Your task to perform on an android device: Open the map Image 0: 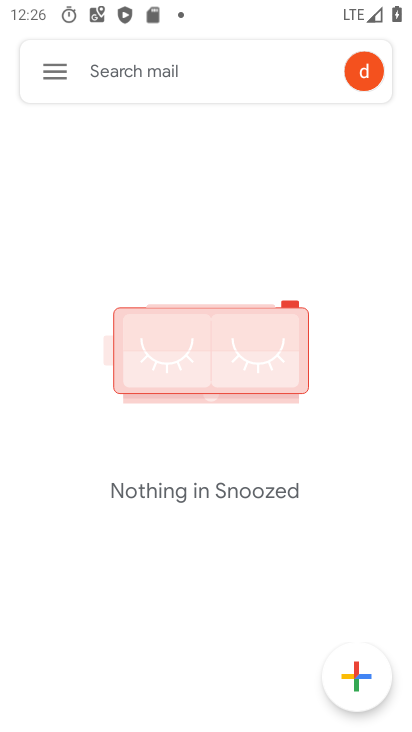
Step 0: press home button
Your task to perform on an android device: Open the map Image 1: 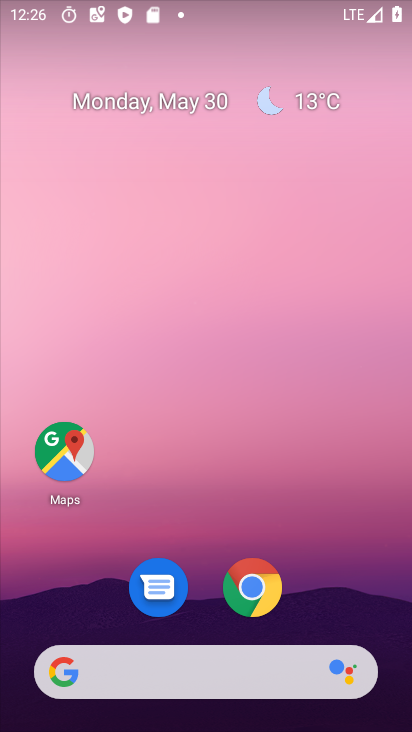
Step 1: click (62, 463)
Your task to perform on an android device: Open the map Image 2: 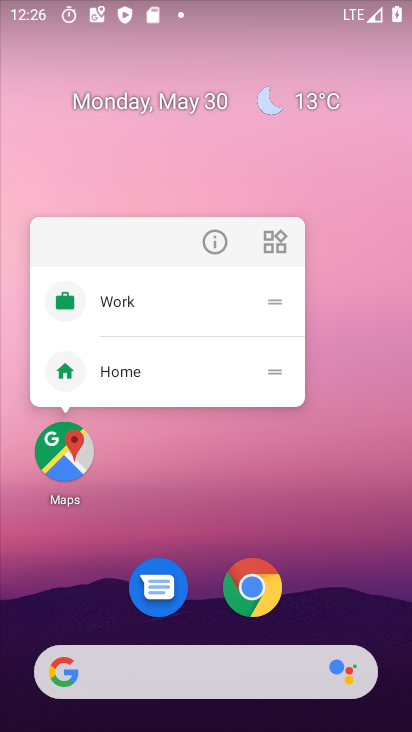
Step 2: click (63, 453)
Your task to perform on an android device: Open the map Image 3: 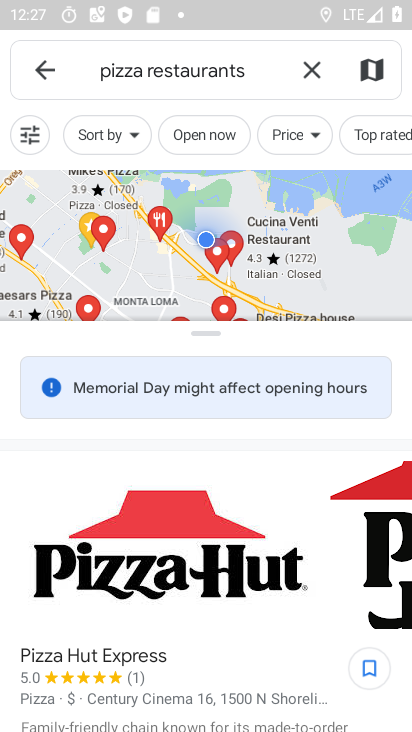
Step 3: task complete